Your task to perform on an android device: change the clock display to show seconds Image 0: 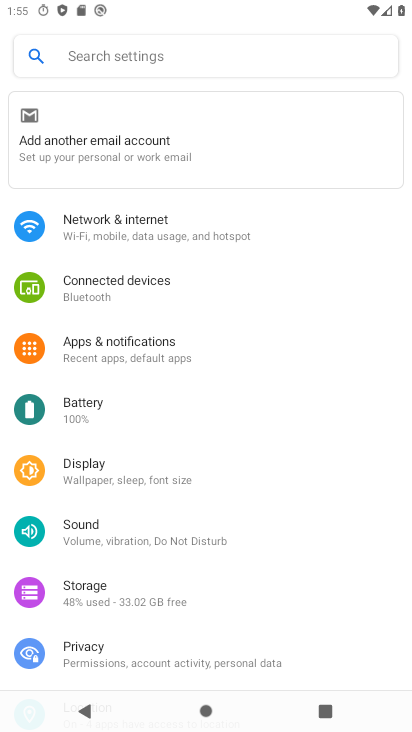
Step 0: press home button
Your task to perform on an android device: change the clock display to show seconds Image 1: 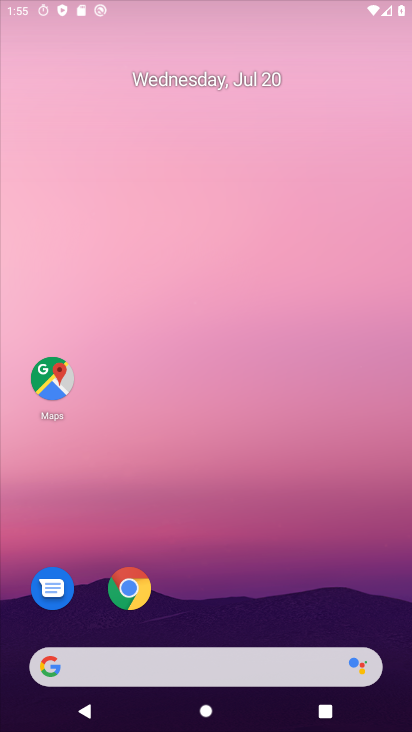
Step 1: drag from (134, 634) to (201, 2)
Your task to perform on an android device: change the clock display to show seconds Image 2: 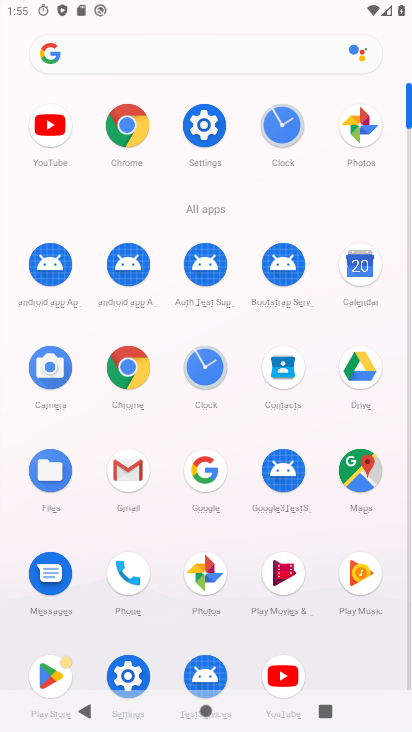
Step 2: click (208, 376)
Your task to perform on an android device: change the clock display to show seconds Image 3: 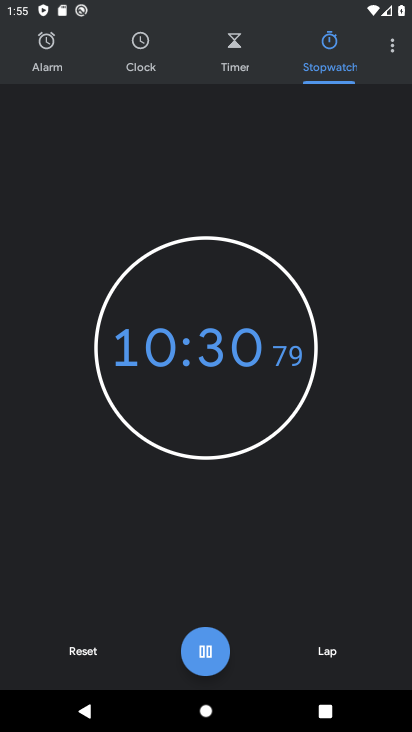
Step 3: click (391, 41)
Your task to perform on an android device: change the clock display to show seconds Image 4: 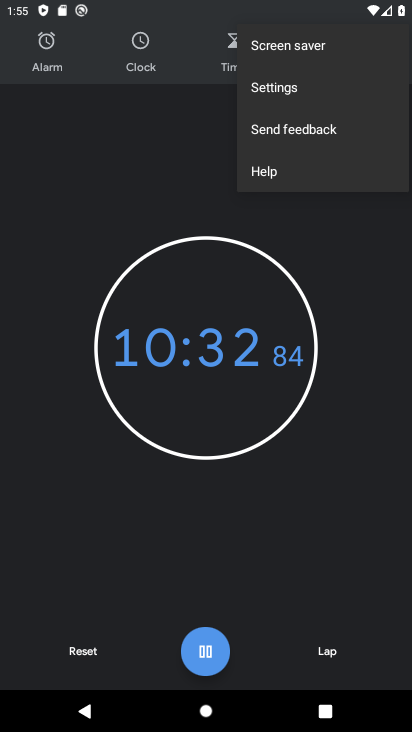
Step 4: click (287, 94)
Your task to perform on an android device: change the clock display to show seconds Image 5: 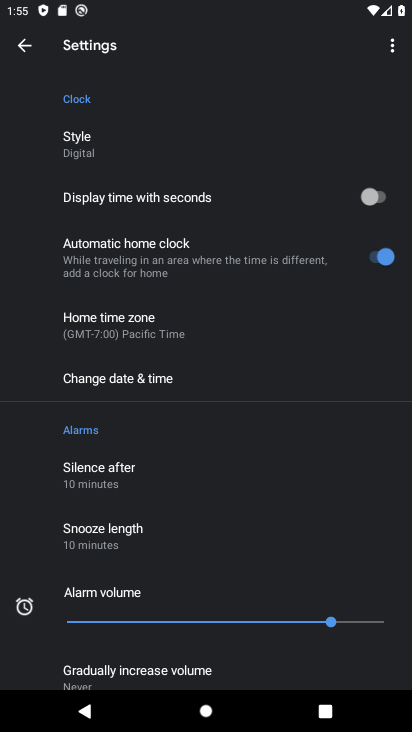
Step 5: click (381, 201)
Your task to perform on an android device: change the clock display to show seconds Image 6: 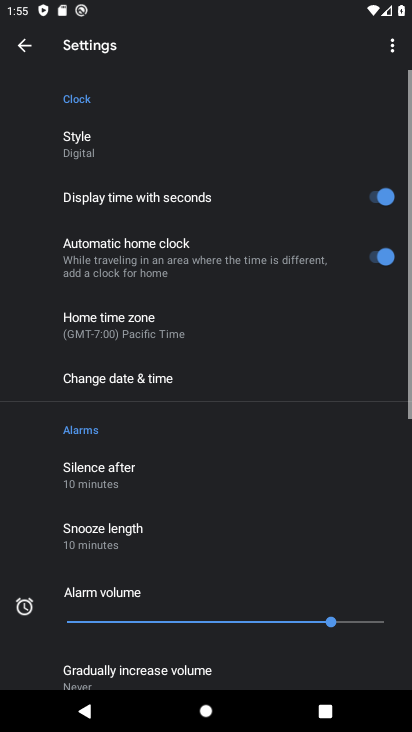
Step 6: task complete